Your task to perform on an android device: Open privacy settings Image 0: 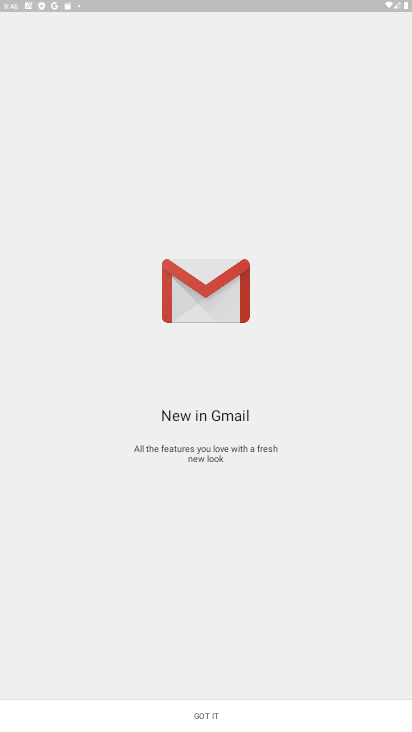
Step 0: press home button
Your task to perform on an android device: Open privacy settings Image 1: 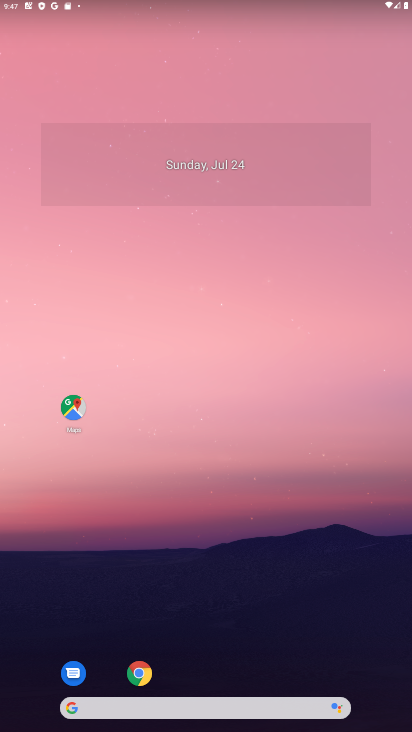
Step 1: drag from (29, 700) to (282, 16)
Your task to perform on an android device: Open privacy settings Image 2: 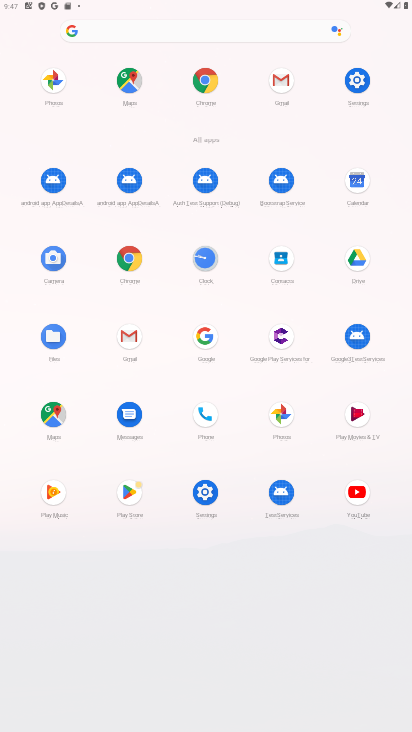
Step 2: click (201, 501)
Your task to perform on an android device: Open privacy settings Image 3: 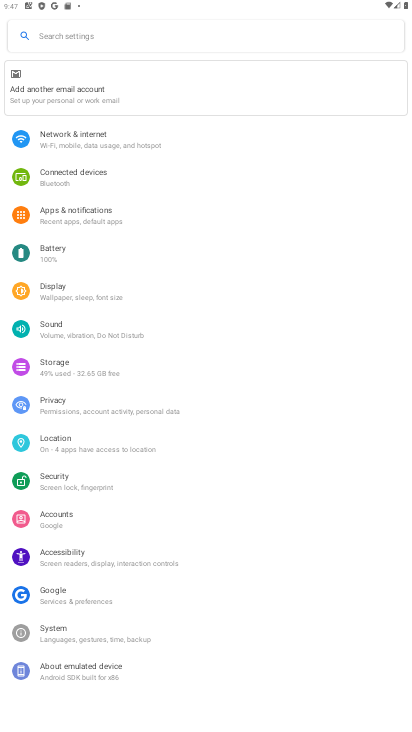
Step 3: click (86, 136)
Your task to perform on an android device: Open privacy settings Image 4: 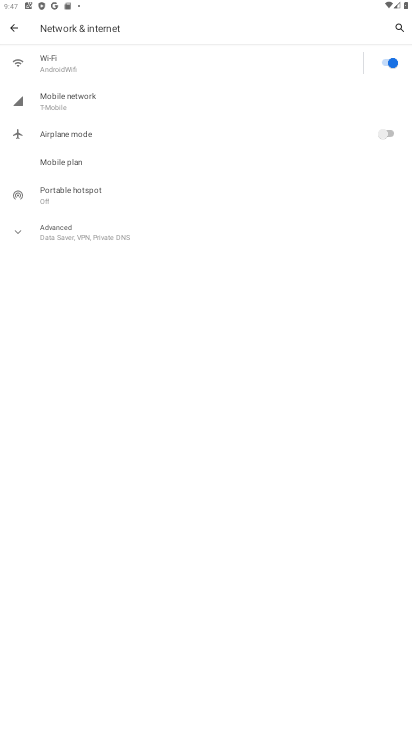
Step 4: click (17, 22)
Your task to perform on an android device: Open privacy settings Image 5: 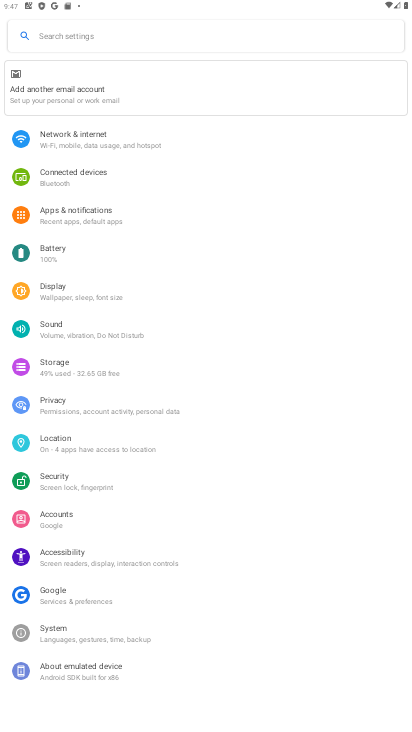
Step 5: click (55, 398)
Your task to perform on an android device: Open privacy settings Image 6: 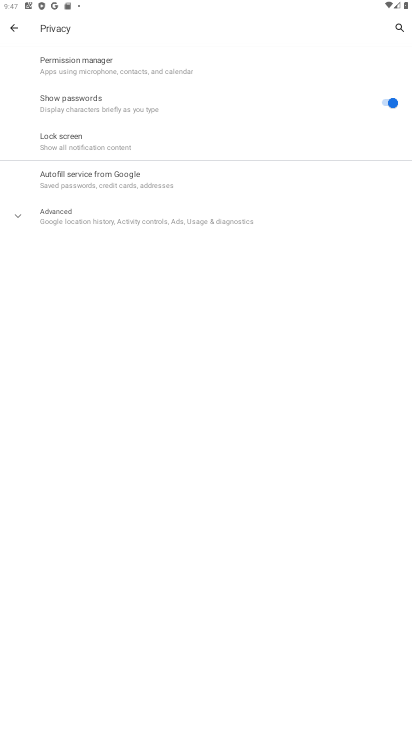
Step 6: task complete